Your task to perform on an android device: turn off notifications settings in the gmail app Image 0: 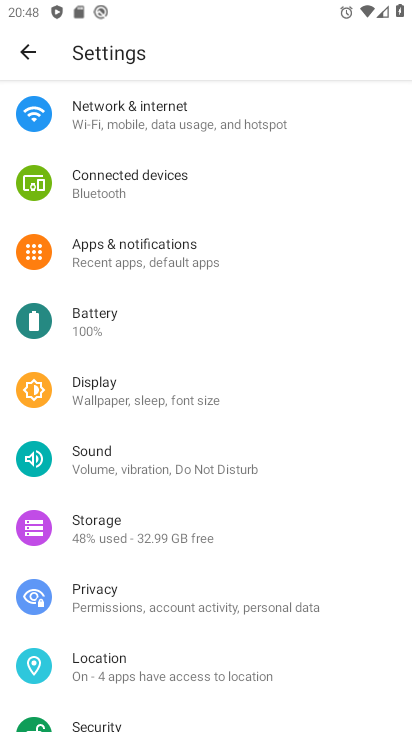
Step 0: press home button
Your task to perform on an android device: turn off notifications settings in the gmail app Image 1: 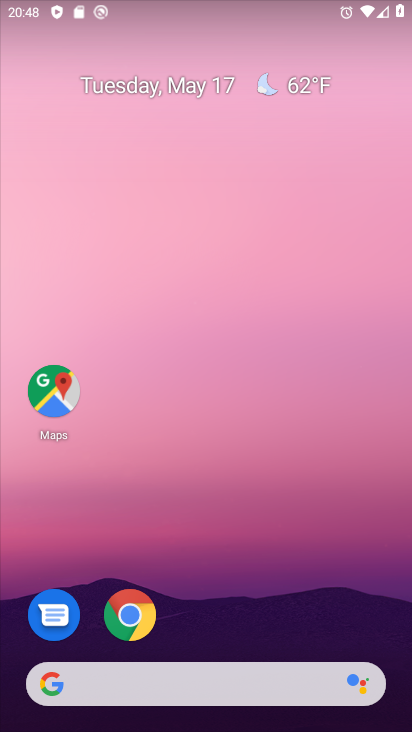
Step 1: drag from (262, 571) to (296, 82)
Your task to perform on an android device: turn off notifications settings in the gmail app Image 2: 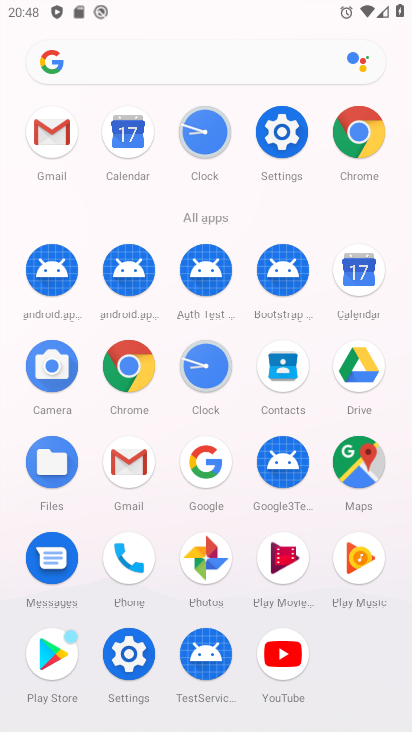
Step 2: click (44, 133)
Your task to perform on an android device: turn off notifications settings in the gmail app Image 3: 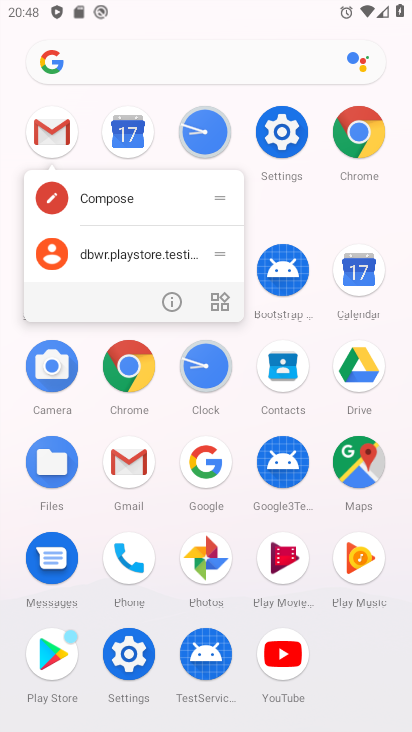
Step 3: click (165, 297)
Your task to perform on an android device: turn off notifications settings in the gmail app Image 4: 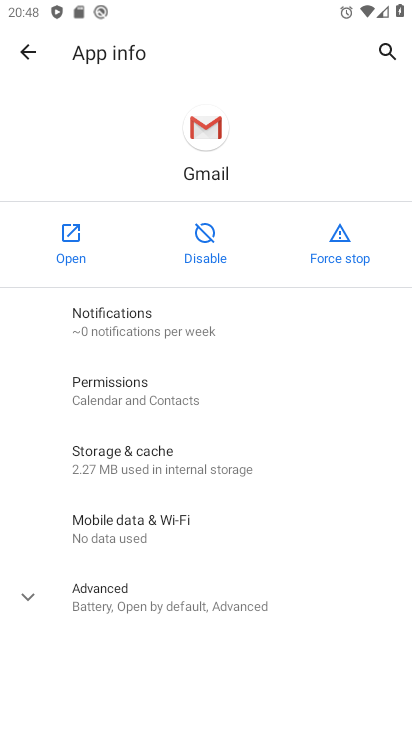
Step 4: click (129, 314)
Your task to perform on an android device: turn off notifications settings in the gmail app Image 5: 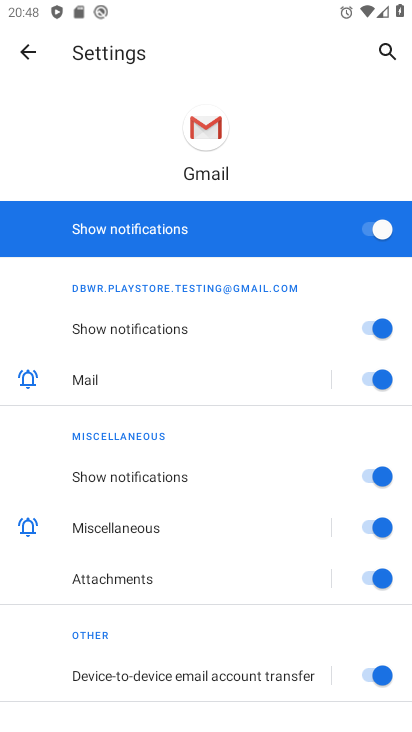
Step 5: click (375, 225)
Your task to perform on an android device: turn off notifications settings in the gmail app Image 6: 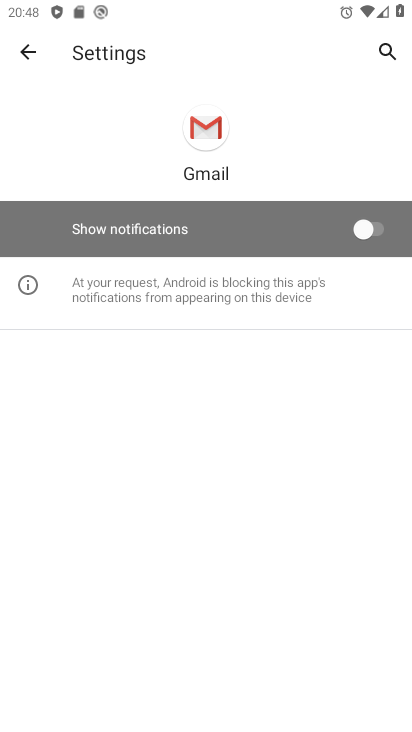
Step 6: task complete